Your task to perform on an android device: Go to internet settings Image 0: 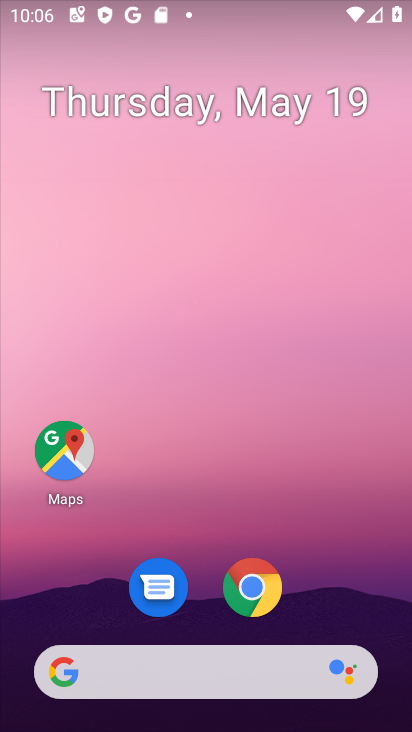
Step 0: drag from (372, 580) to (251, 53)
Your task to perform on an android device: Go to internet settings Image 1: 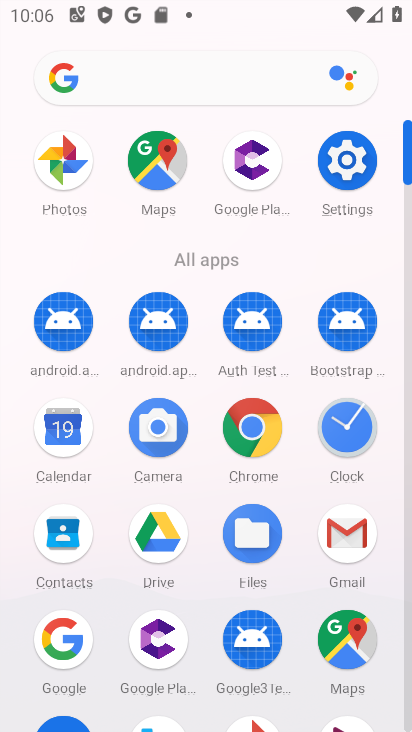
Step 1: click (348, 161)
Your task to perform on an android device: Go to internet settings Image 2: 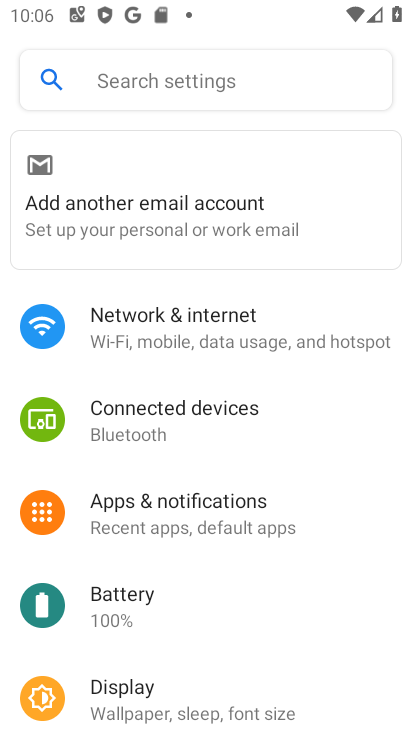
Step 2: click (318, 330)
Your task to perform on an android device: Go to internet settings Image 3: 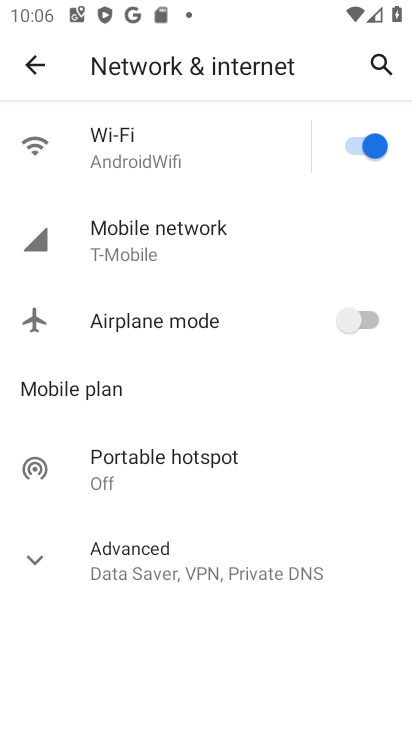
Step 3: task complete